Your task to perform on an android device: allow cookies in the chrome app Image 0: 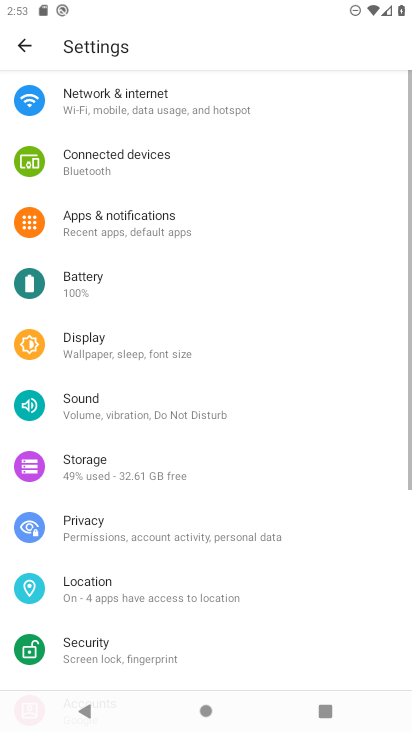
Step 0: press home button
Your task to perform on an android device: allow cookies in the chrome app Image 1: 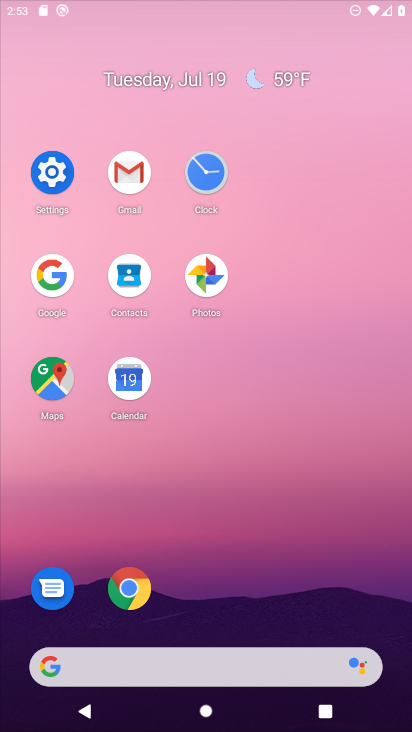
Step 1: click (406, 328)
Your task to perform on an android device: allow cookies in the chrome app Image 2: 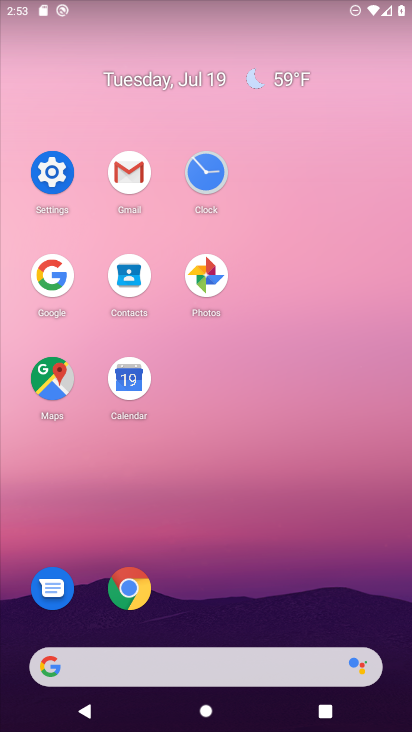
Step 2: click (138, 580)
Your task to perform on an android device: allow cookies in the chrome app Image 3: 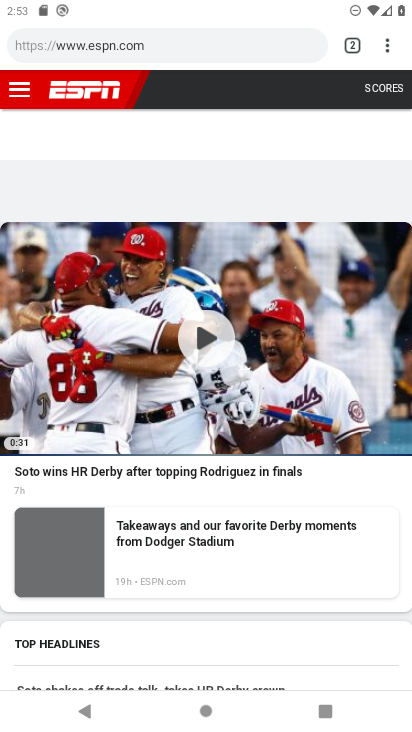
Step 3: click (390, 44)
Your task to perform on an android device: allow cookies in the chrome app Image 4: 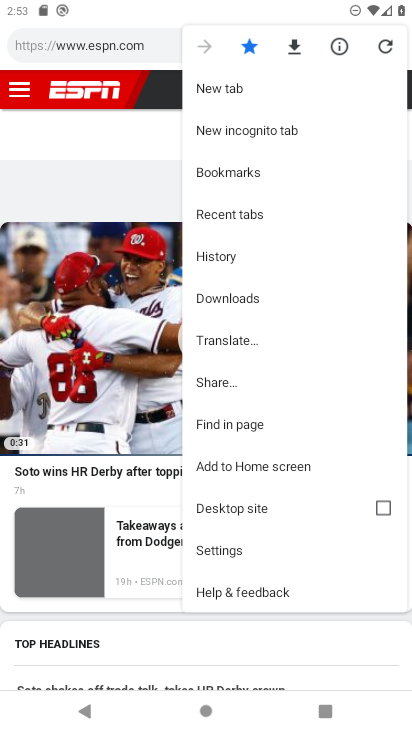
Step 4: click (263, 560)
Your task to perform on an android device: allow cookies in the chrome app Image 5: 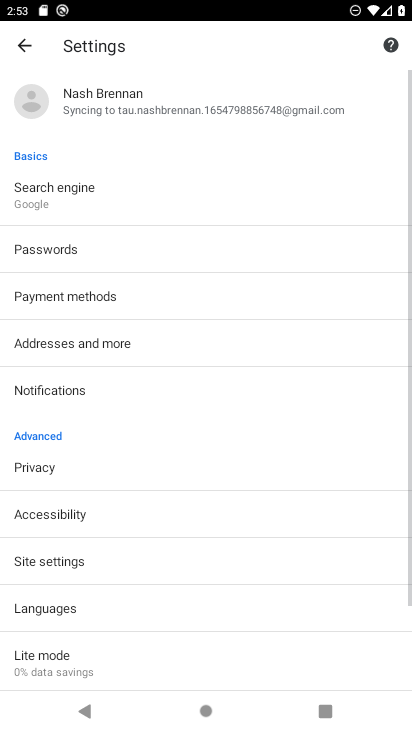
Step 5: click (263, 560)
Your task to perform on an android device: allow cookies in the chrome app Image 6: 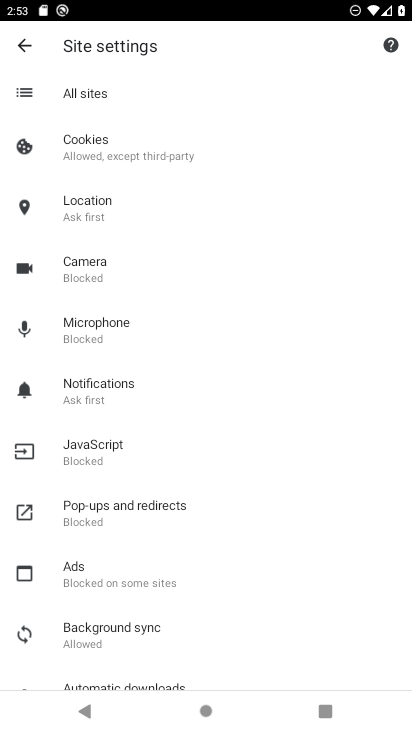
Step 6: click (175, 145)
Your task to perform on an android device: allow cookies in the chrome app Image 7: 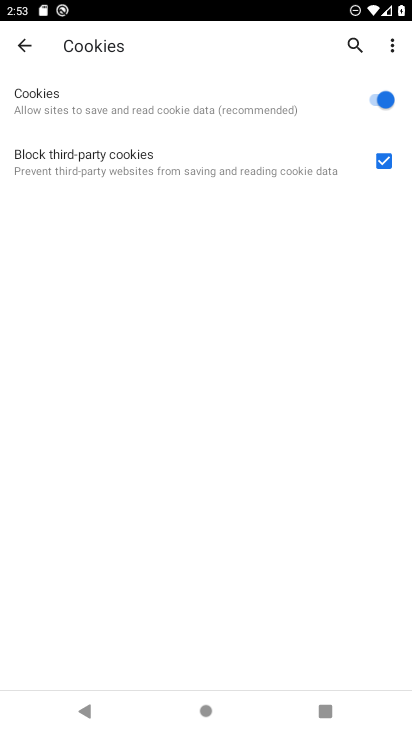
Step 7: task complete